Your task to perform on an android device: Open the calendar and show me this week's events? Image 0: 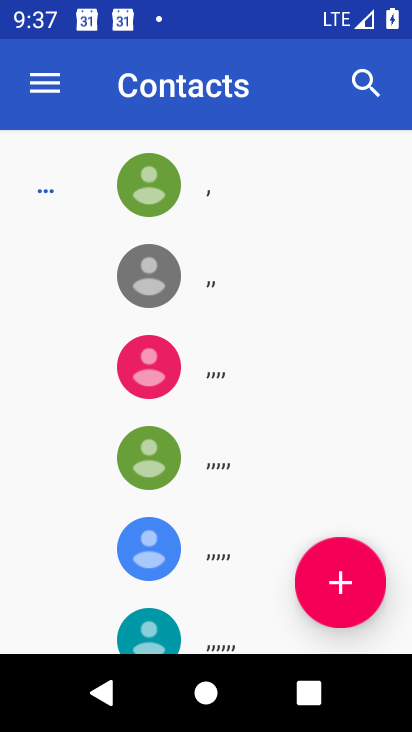
Step 0: press home button
Your task to perform on an android device: Open the calendar and show me this week's events? Image 1: 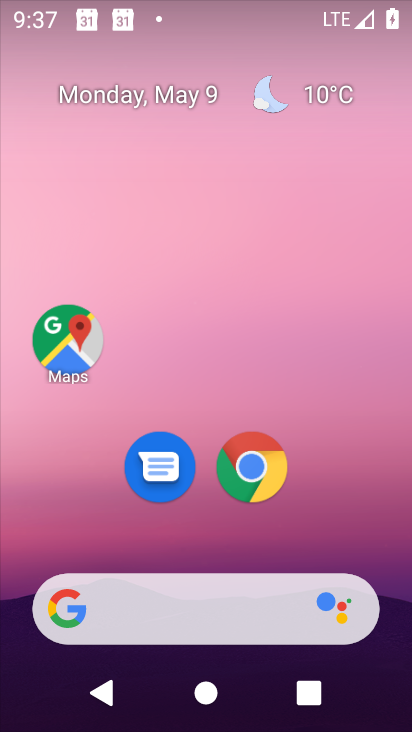
Step 1: drag from (374, 520) to (296, 9)
Your task to perform on an android device: Open the calendar and show me this week's events? Image 2: 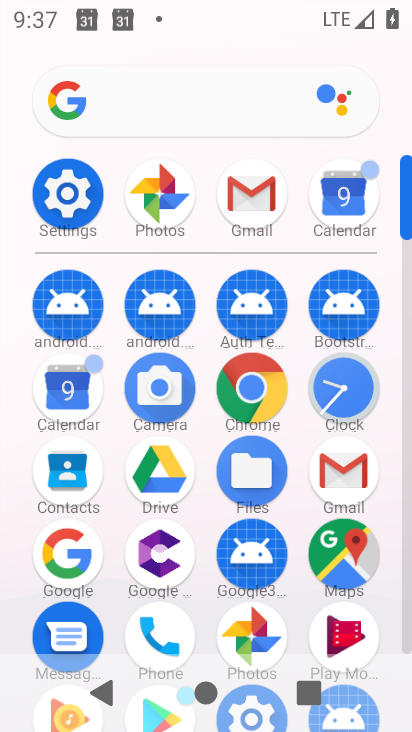
Step 2: click (349, 198)
Your task to perform on an android device: Open the calendar and show me this week's events? Image 3: 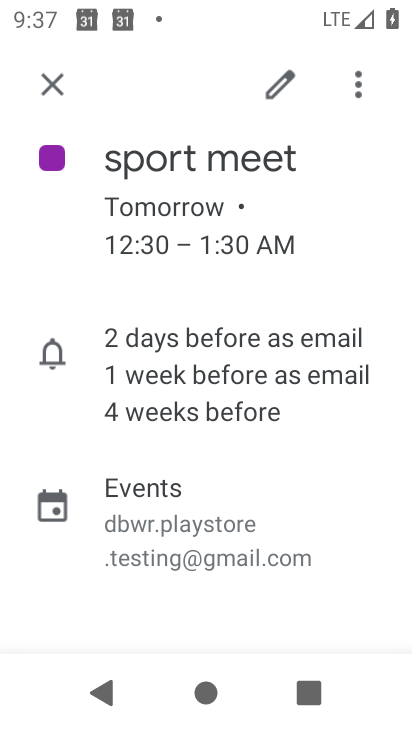
Step 3: click (65, 84)
Your task to perform on an android device: Open the calendar and show me this week's events? Image 4: 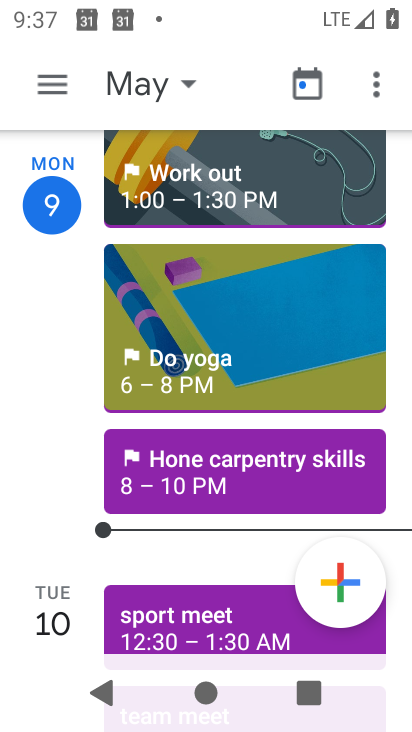
Step 4: click (39, 86)
Your task to perform on an android device: Open the calendar and show me this week's events? Image 5: 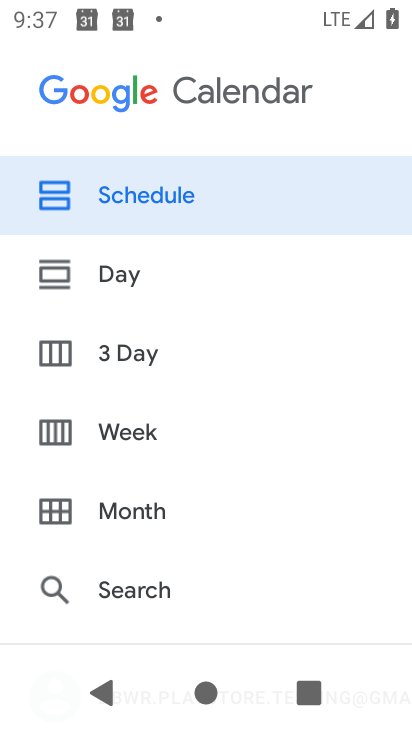
Step 5: click (144, 429)
Your task to perform on an android device: Open the calendar and show me this week's events? Image 6: 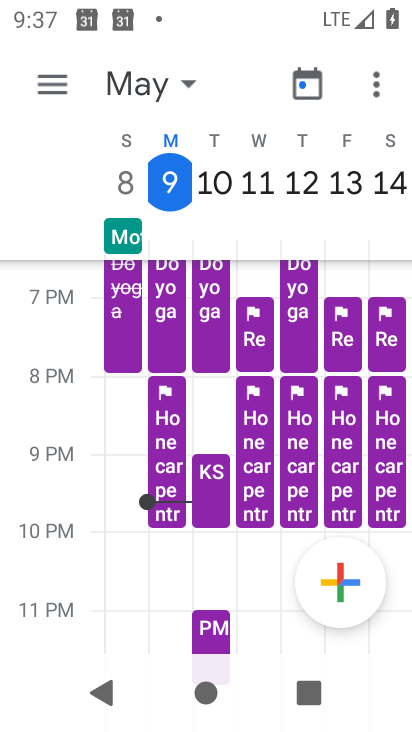
Step 6: task complete